Your task to perform on an android device: Go to calendar. Show me events next week Image 0: 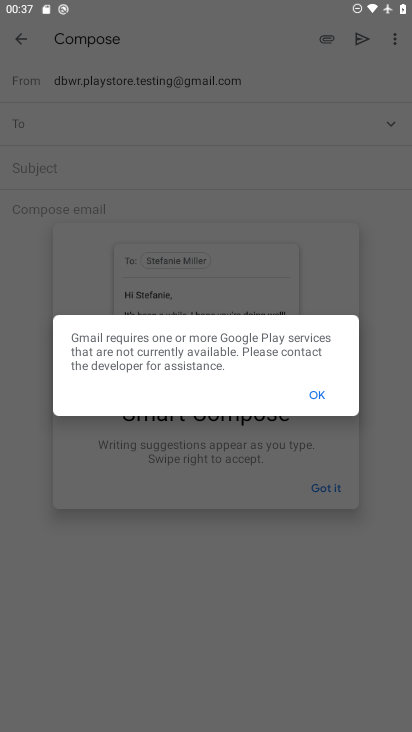
Step 0: press home button
Your task to perform on an android device: Go to calendar. Show me events next week Image 1: 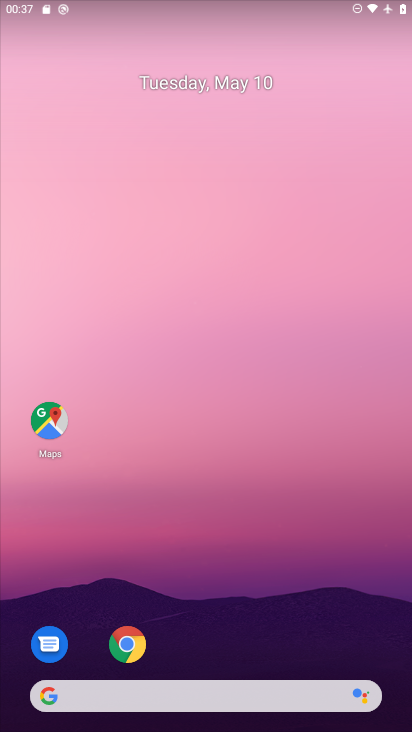
Step 1: drag from (234, 625) to (226, 242)
Your task to perform on an android device: Go to calendar. Show me events next week Image 2: 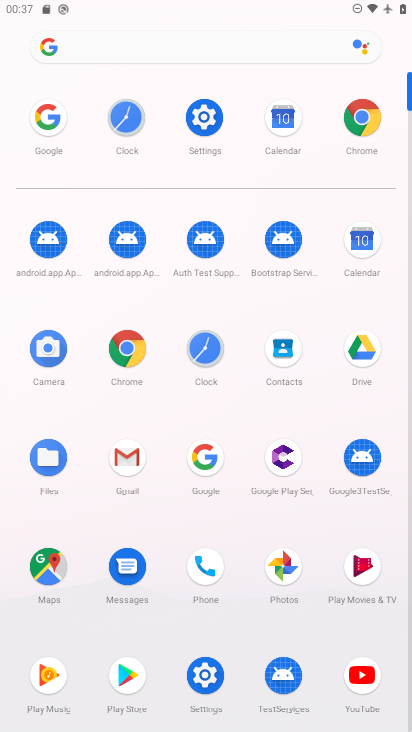
Step 2: click (366, 237)
Your task to perform on an android device: Go to calendar. Show me events next week Image 3: 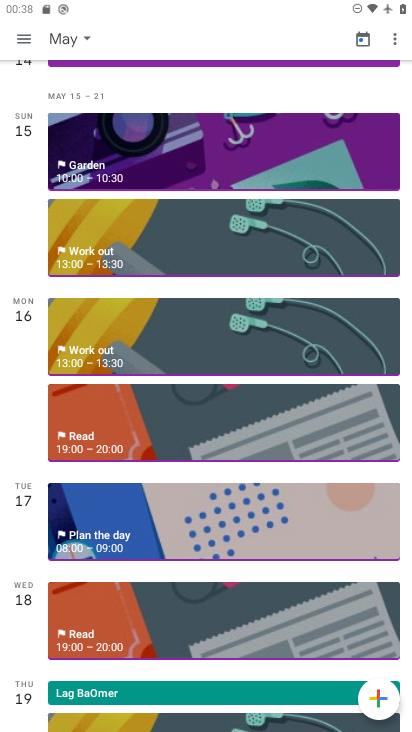
Step 3: click (66, 41)
Your task to perform on an android device: Go to calendar. Show me events next week Image 4: 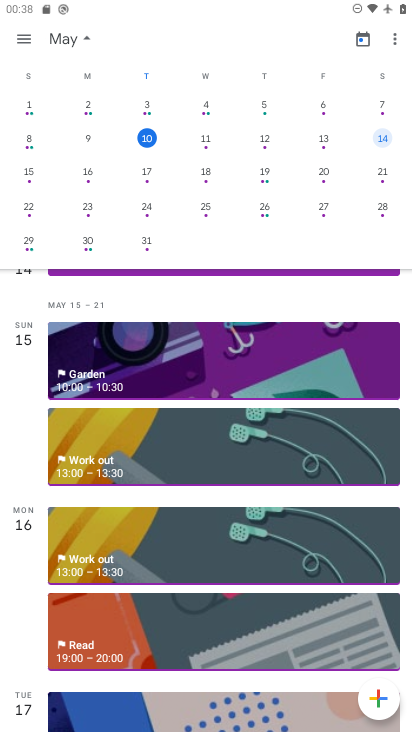
Step 4: click (19, 172)
Your task to perform on an android device: Go to calendar. Show me events next week Image 5: 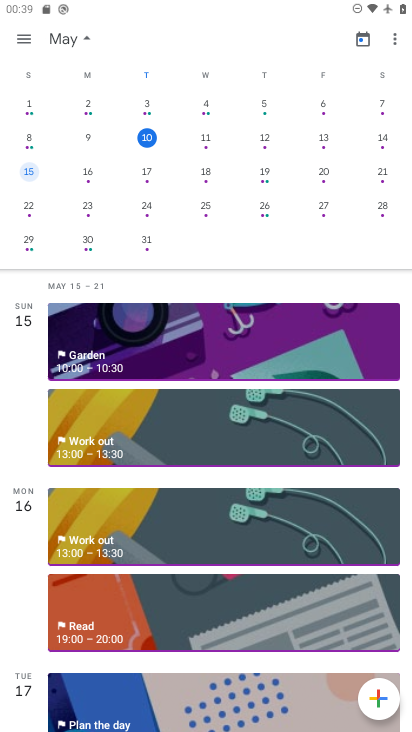
Step 5: task complete